Your task to perform on an android device: See recent photos Image 0: 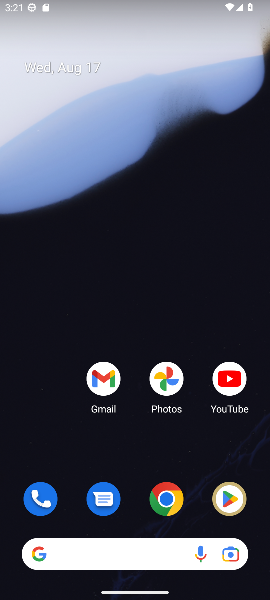
Step 0: drag from (136, 447) to (179, 35)
Your task to perform on an android device: See recent photos Image 1: 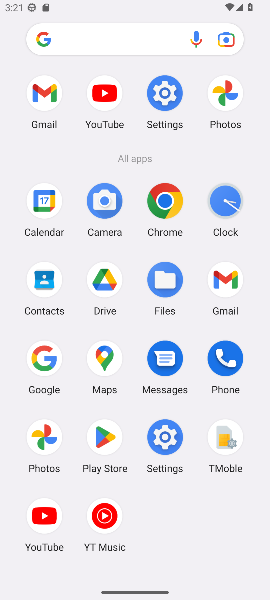
Step 1: click (107, 357)
Your task to perform on an android device: See recent photos Image 2: 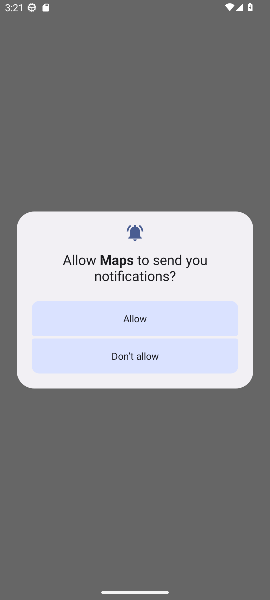
Step 2: press home button
Your task to perform on an android device: See recent photos Image 3: 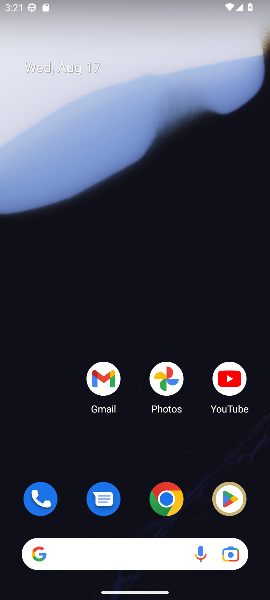
Step 3: drag from (173, 424) to (219, 61)
Your task to perform on an android device: See recent photos Image 4: 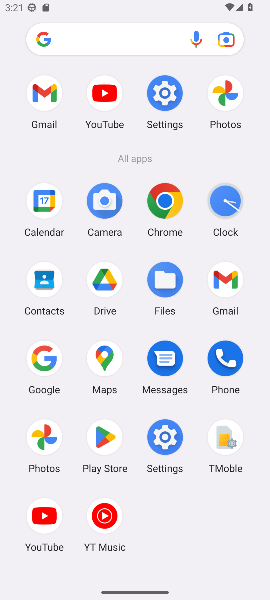
Step 4: click (44, 434)
Your task to perform on an android device: See recent photos Image 5: 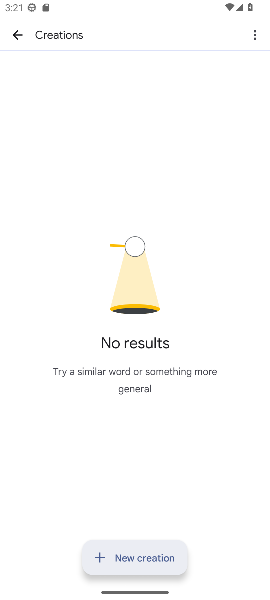
Step 5: task complete